Your task to perform on an android device: Open Youtube and go to the subscriptions tab Image 0: 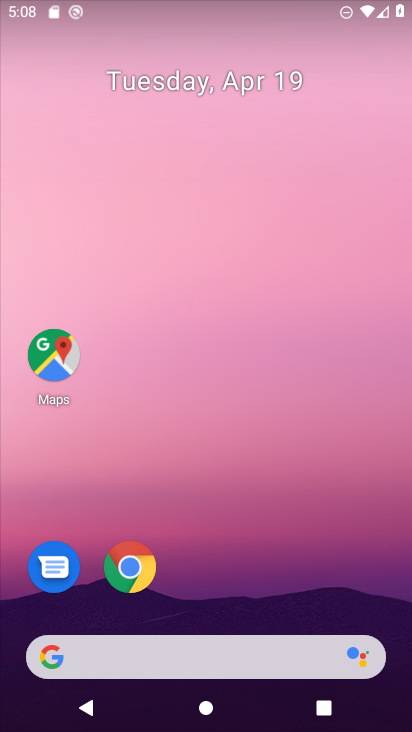
Step 0: drag from (284, 545) to (189, 10)
Your task to perform on an android device: Open Youtube and go to the subscriptions tab Image 1: 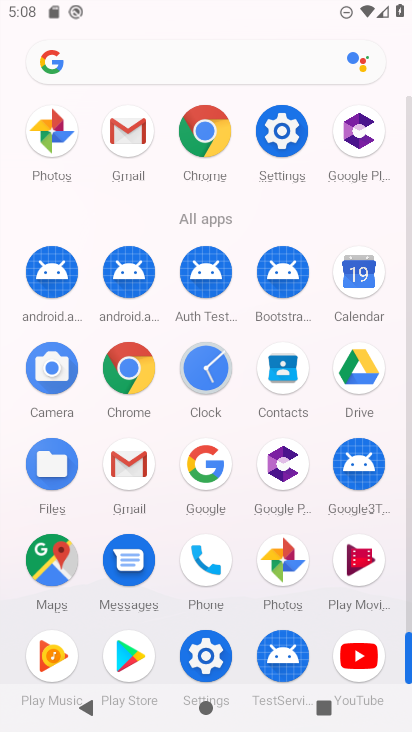
Step 1: click (363, 654)
Your task to perform on an android device: Open Youtube and go to the subscriptions tab Image 2: 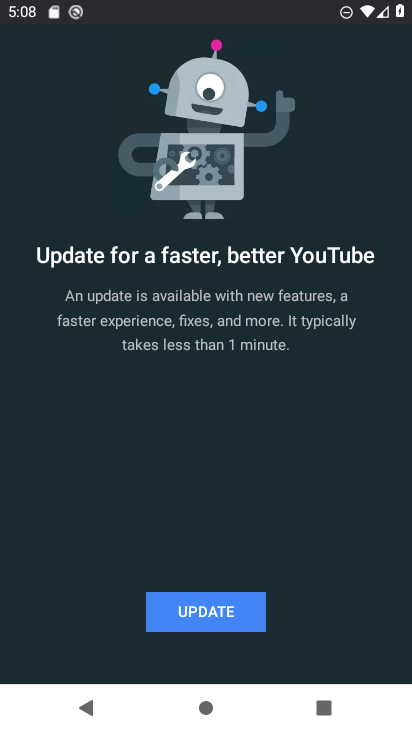
Step 2: click (220, 608)
Your task to perform on an android device: Open Youtube and go to the subscriptions tab Image 3: 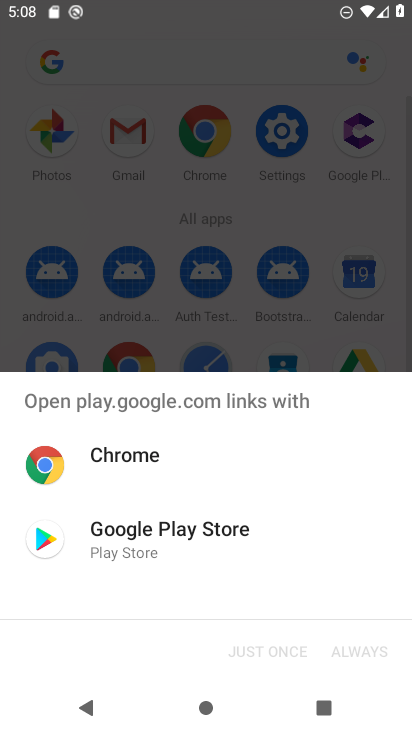
Step 3: click (209, 523)
Your task to perform on an android device: Open Youtube and go to the subscriptions tab Image 4: 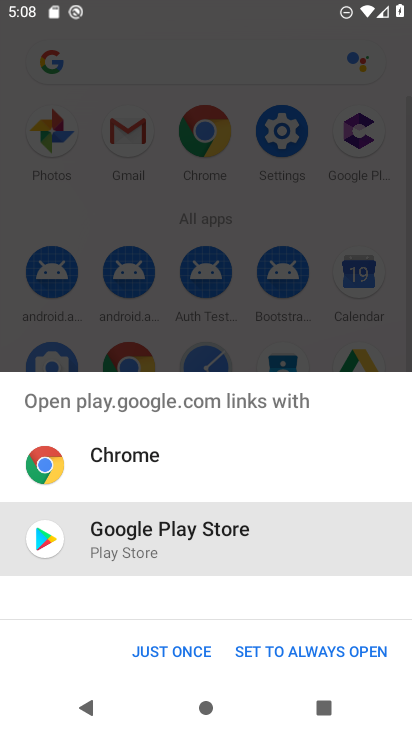
Step 4: click (348, 653)
Your task to perform on an android device: Open Youtube and go to the subscriptions tab Image 5: 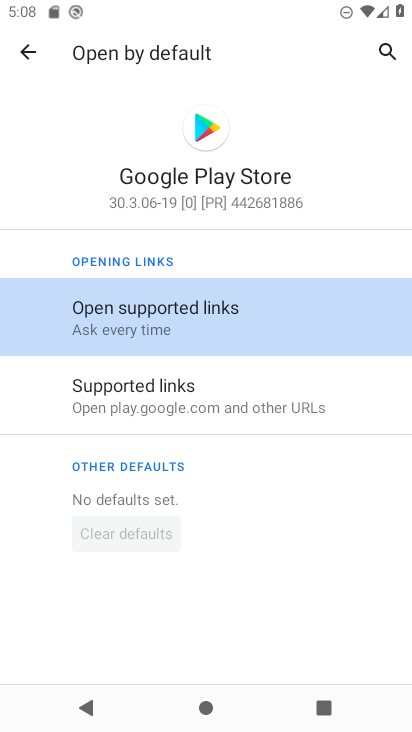
Step 5: press back button
Your task to perform on an android device: Open Youtube and go to the subscriptions tab Image 6: 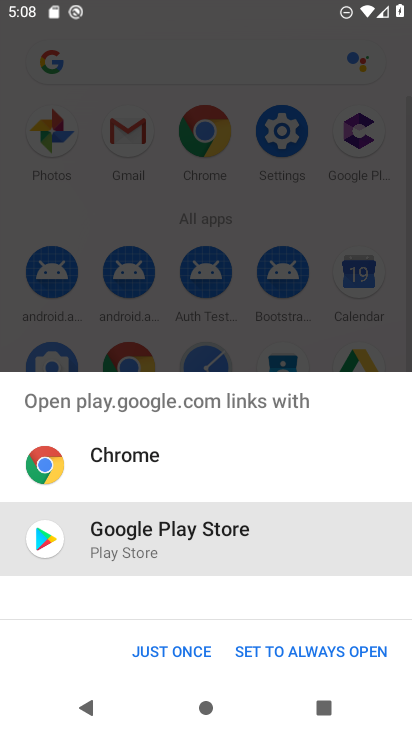
Step 6: click (196, 538)
Your task to perform on an android device: Open Youtube and go to the subscriptions tab Image 7: 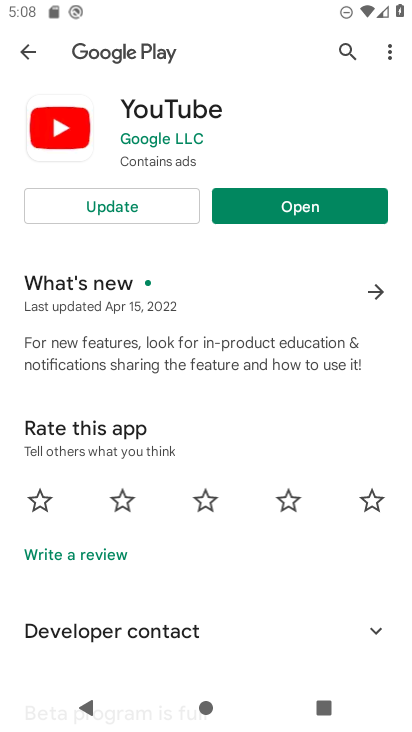
Step 7: click (118, 199)
Your task to perform on an android device: Open Youtube and go to the subscriptions tab Image 8: 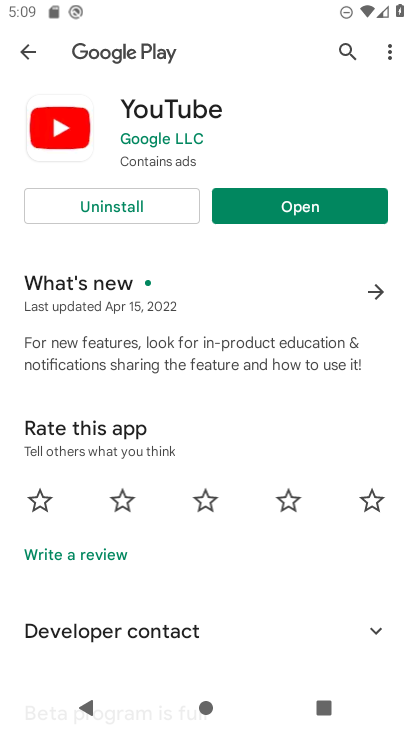
Step 8: click (330, 215)
Your task to perform on an android device: Open Youtube and go to the subscriptions tab Image 9: 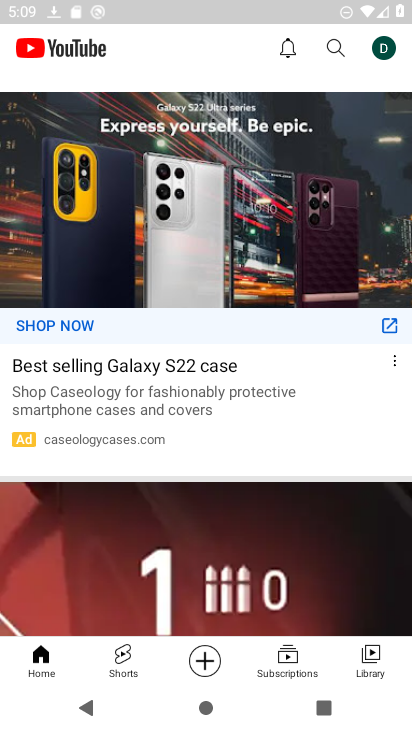
Step 9: click (271, 679)
Your task to perform on an android device: Open Youtube and go to the subscriptions tab Image 10: 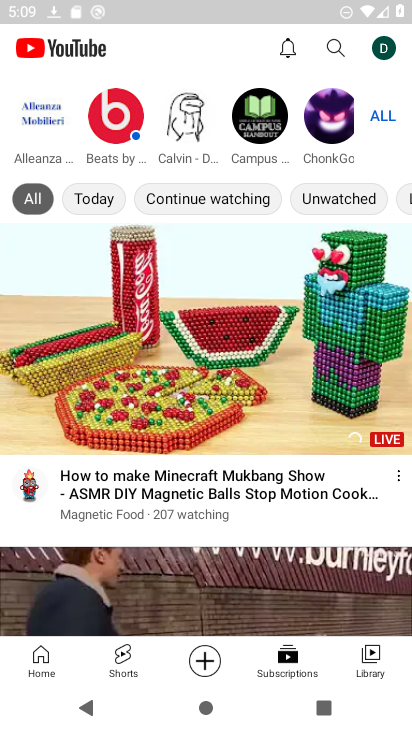
Step 10: task complete